Your task to perform on an android device: Open calendar and show me the second week of next month Image 0: 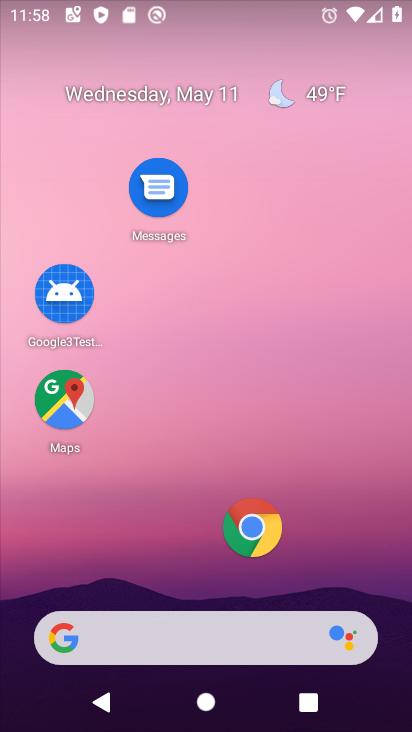
Step 0: drag from (204, 604) to (7, 166)
Your task to perform on an android device: Open calendar and show me the second week of next month Image 1: 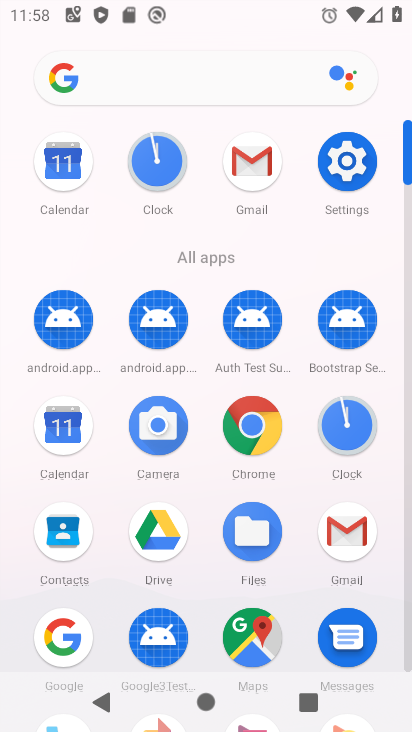
Step 1: click (46, 439)
Your task to perform on an android device: Open calendar and show me the second week of next month Image 2: 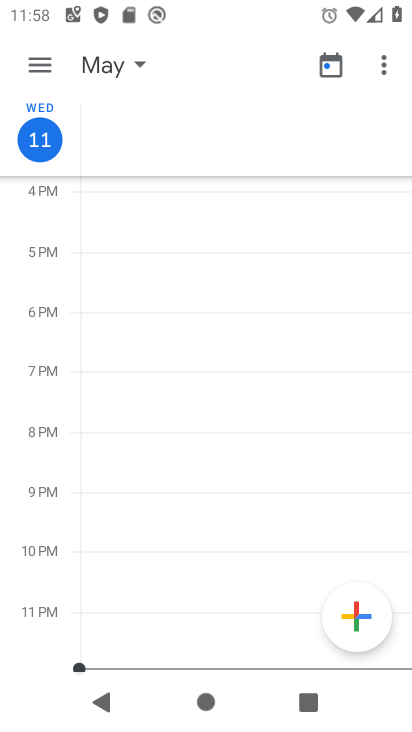
Step 2: click (53, 65)
Your task to perform on an android device: Open calendar and show me the second week of next month Image 3: 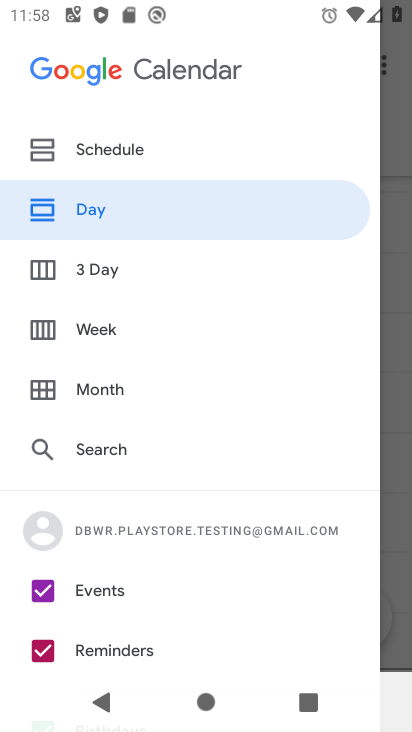
Step 3: click (113, 326)
Your task to perform on an android device: Open calendar and show me the second week of next month Image 4: 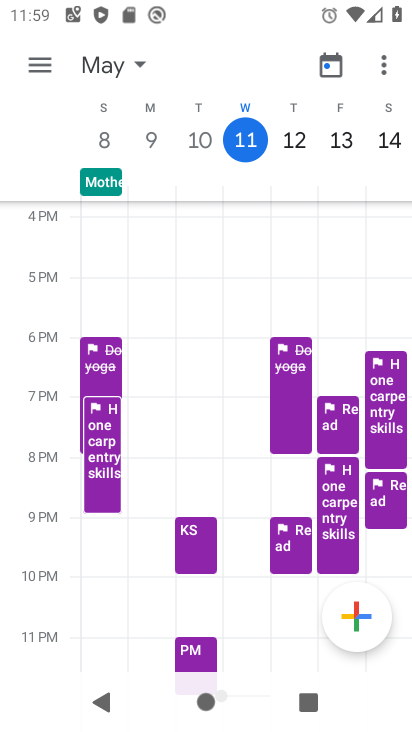
Step 4: task complete